Your task to perform on an android device: find which apps use the phone's location Image 0: 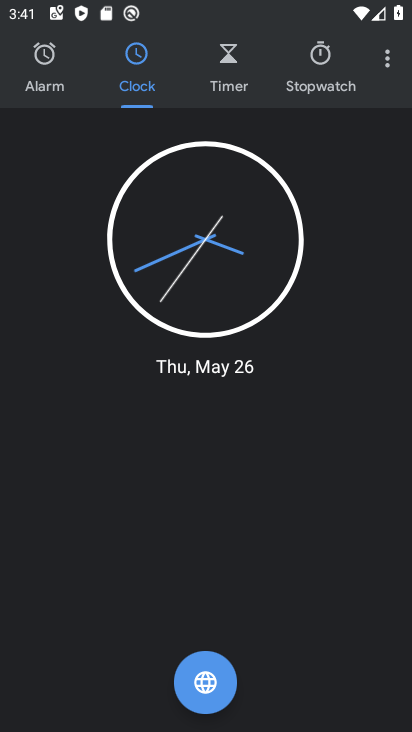
Step 0: press home button
Your task to perform on an android device: find which apps use the phone's location Image 1: 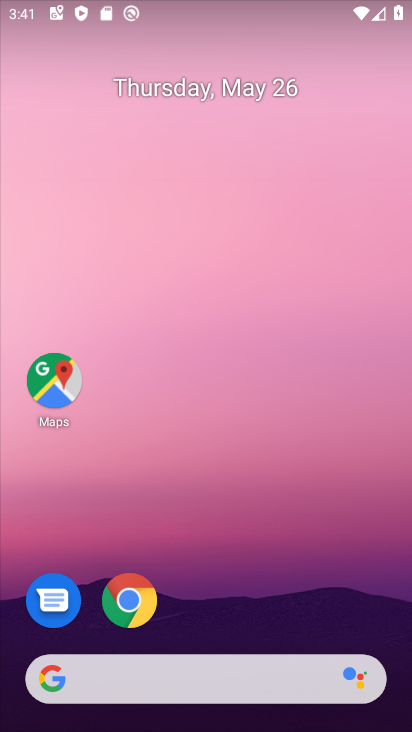
Step 1: drag from (224, 603) to (287, 143)
Your task to perform on an android device: find which apps use the phone's location Image 2: 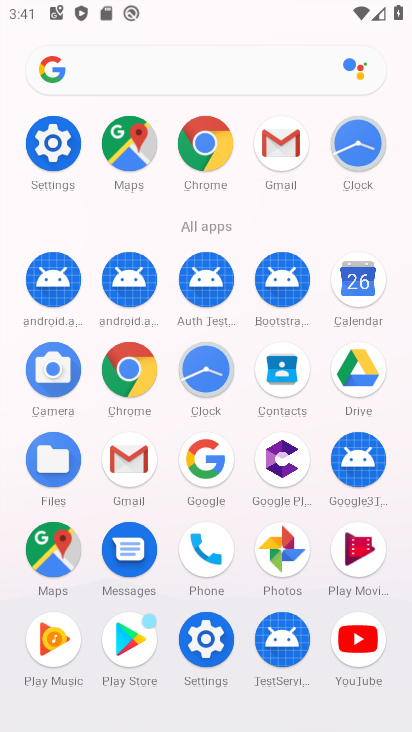
Step 2: click (200, 639)
Your task to perform on an android device: find which apps use the phone's location Image 3: 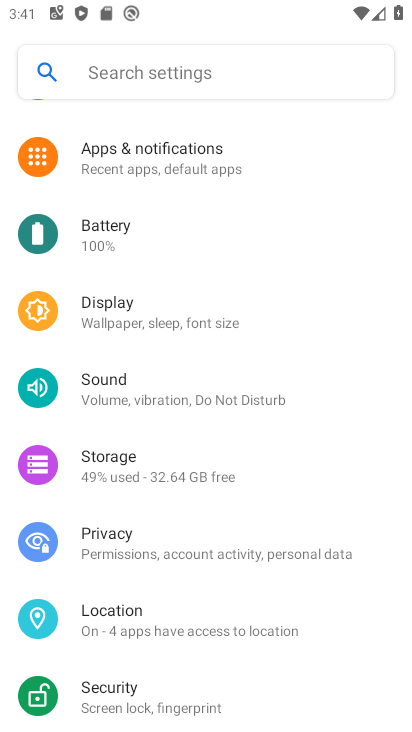
Step 3: click (158, 622)
Your task to perform on an android device: find which apps use the phone's location Image 4: 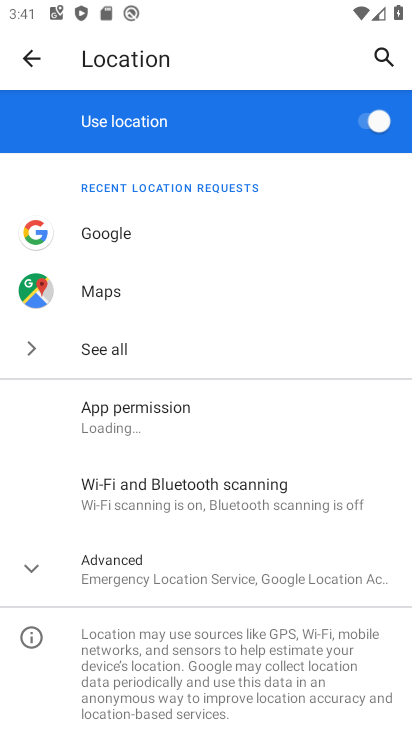
Step 4: click (178, 425)
Your task to perform on an android device: find which apps use the phone's location Image 5: 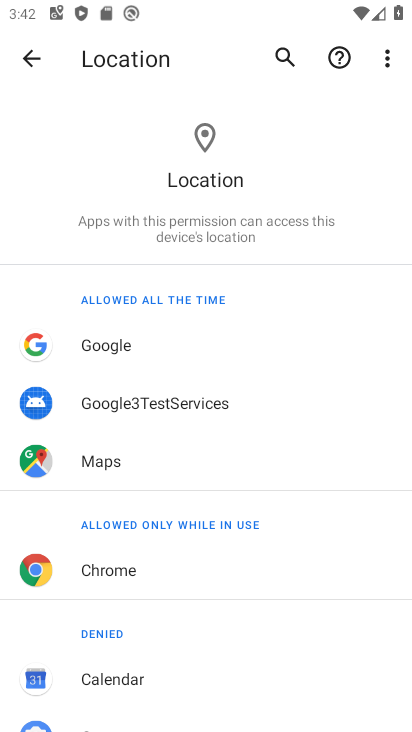
Step 5: task complete